Your task to perform on an android device: empty trash in the gmail app Image 0: 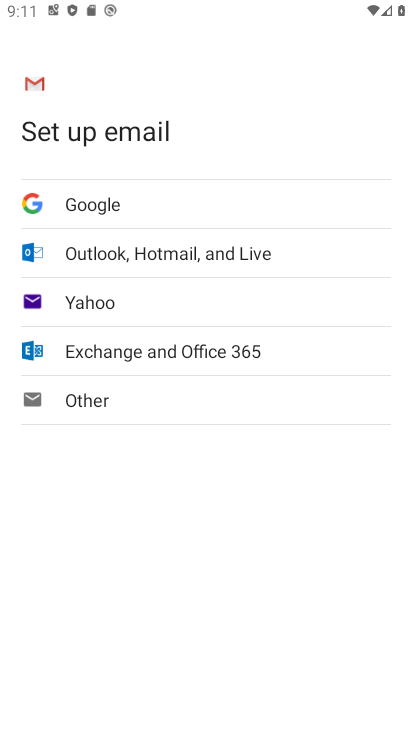
Step 0: press home button
Your task to perform on an android device: empty trash in the gmail app Image 1: 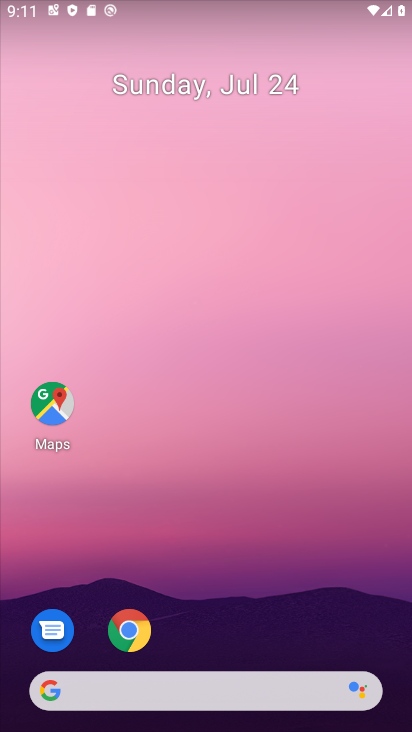
Step 1: drag from (205, 629) to (157, 55)
Your task to perform on an android device: empty trash in the gmail app Image 2: 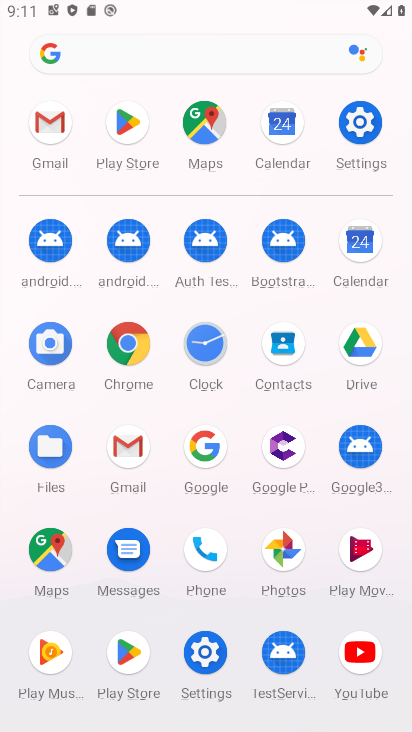
Step 2: click (25, 142)
Your task to perform on an android device: empty trash in the gmail app Image 3: 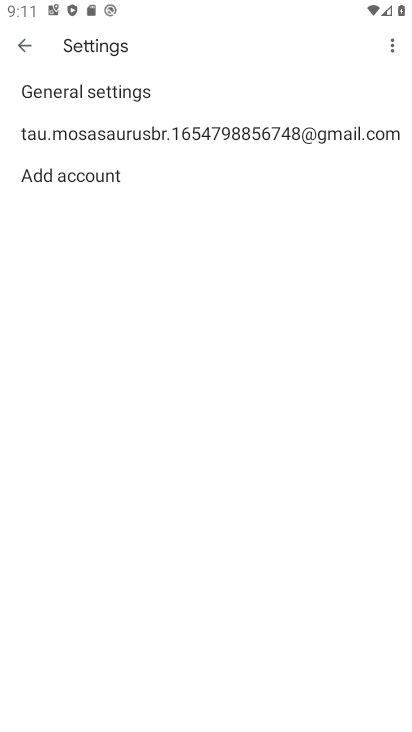
Step 3: click (11, 51)
Your task to perform on an android device: empty trash in the gmail app Image 4: 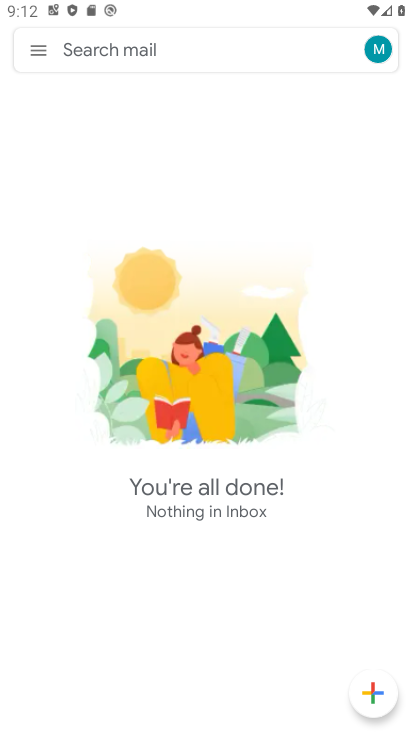
Step 4: click (39, 47)
Your task to perform on an android device: empty trash in the gmail app Image 5: 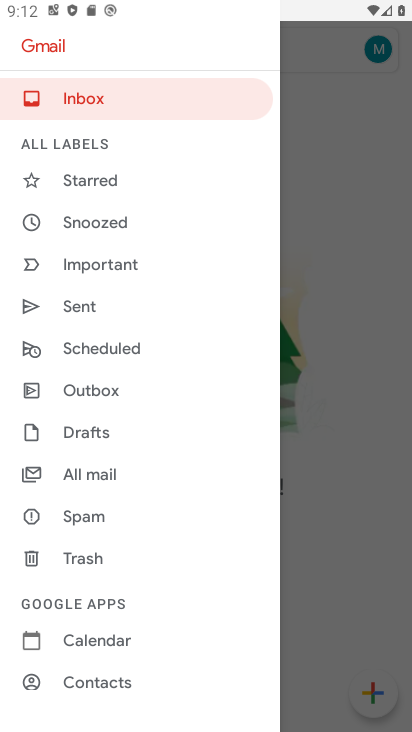
Step 5: click (102, 560)
Your task to perform on an android device: empty trash in the gmail app Image 6: 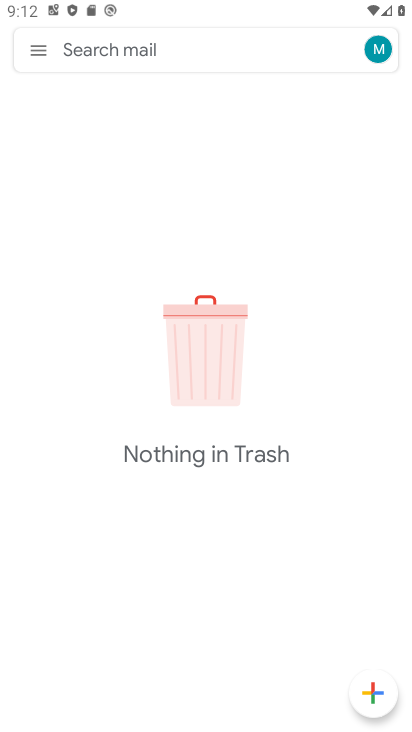
Step 6: task complete